Your task to perform on an android device: turn off picture-in-picture Image 0: 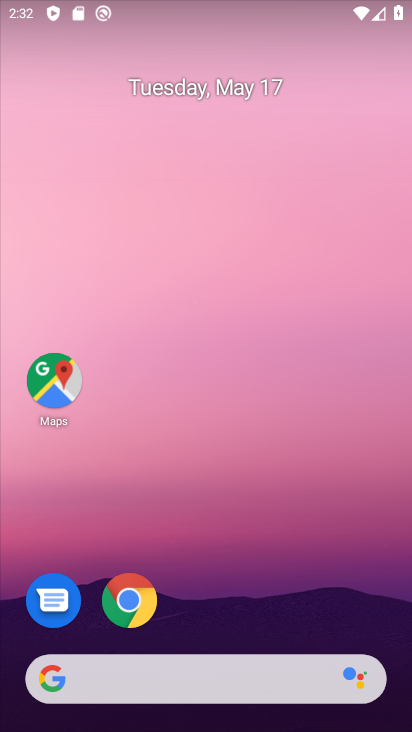
Step 0: drag from (211, 643) to (281, 193)
Your task to perform on an android device: turn off picture-in-picture Image 1: 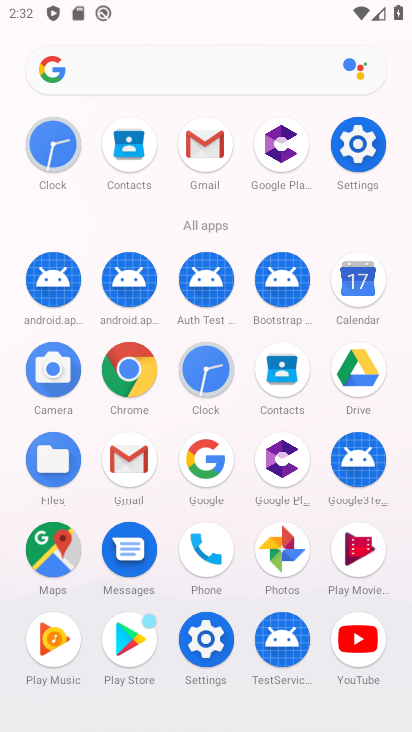
Step 1: click (375, 137)
Your task to perform on an android device: turn off picture-in-picture Image 2: 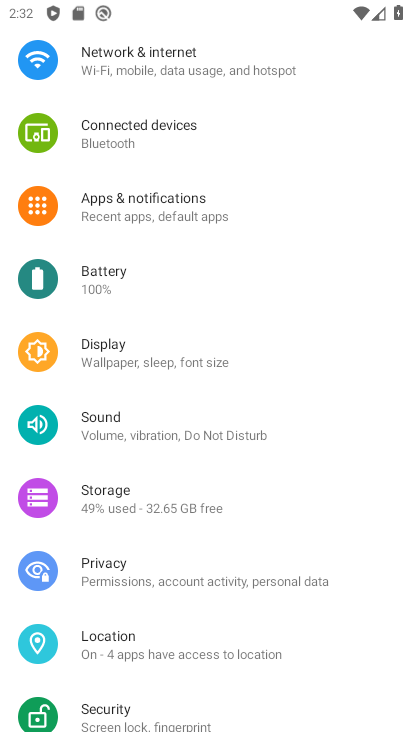
Step 2: click (189, 203)
Your task to perform on an android device: turn off picture-in-picture Image 3: 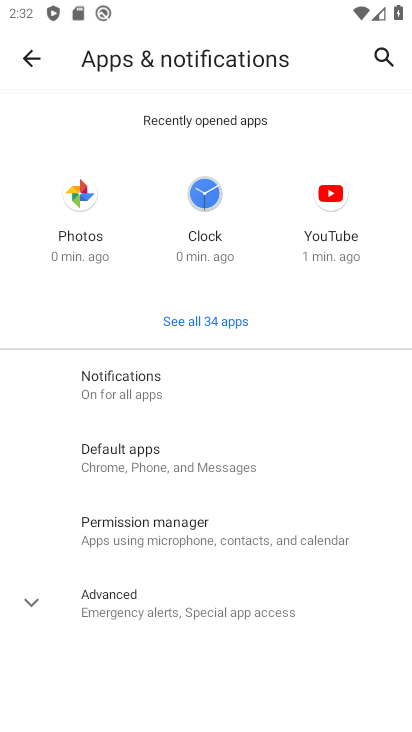
Step 3: click (232, 621)
Your task to perform on an android device: turn off picture-in-picture Image 4: 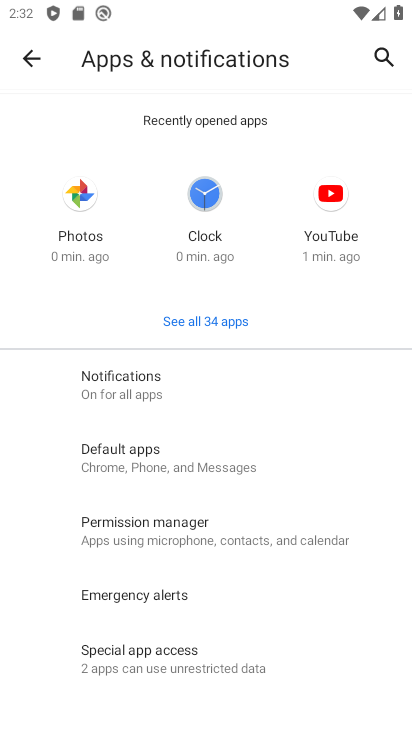
Step 4: click (217, 652)
Your task to perform on an android device: turn off picture-in-picture Image 5: 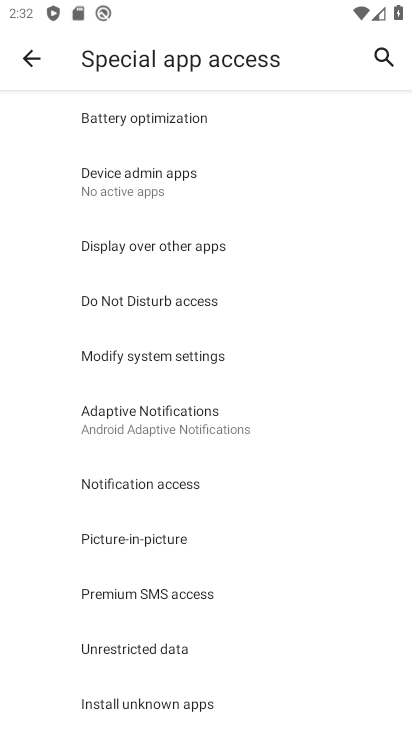
Step 5: click (211, 555)
Your task to perform on an android device: turn off picture-in-picture Image 6: 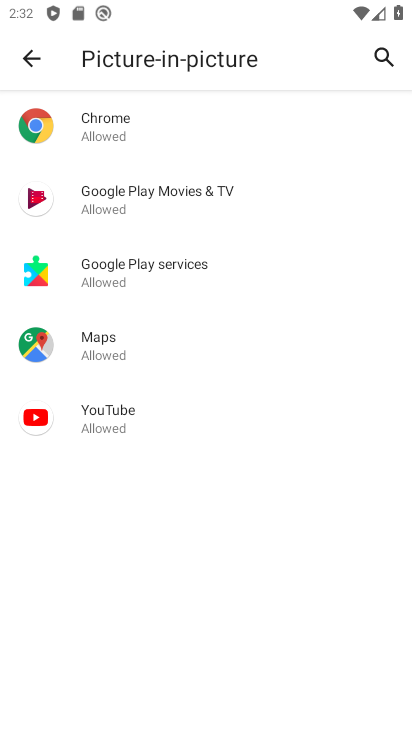
Step 6: click (166, 136)
Your task to perform on an android device: turn off picture-in-picture Image 7: 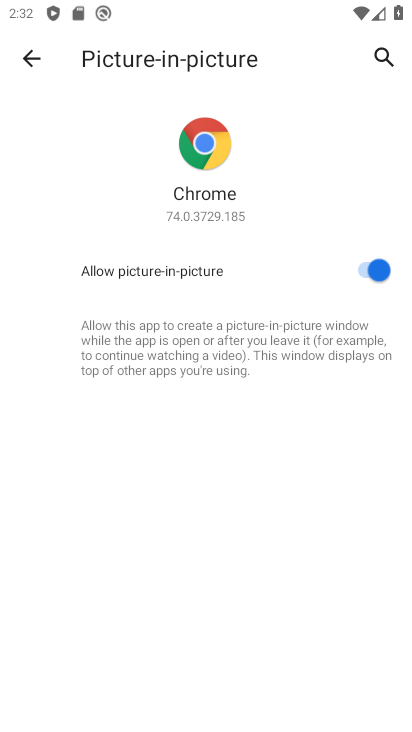
Step 7: click (365, 261)
Your task to perform on an android device: turn off picture-in-picture Image 8: 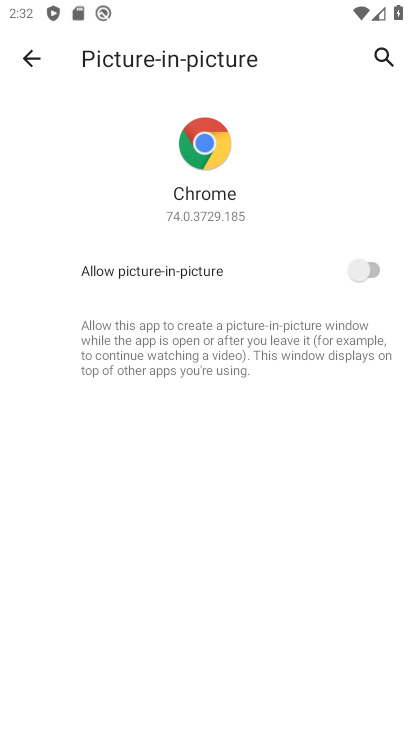
Step 8: click (13, 55)
Your task to perform on an android device: turn off picture-in-picture Image 9: 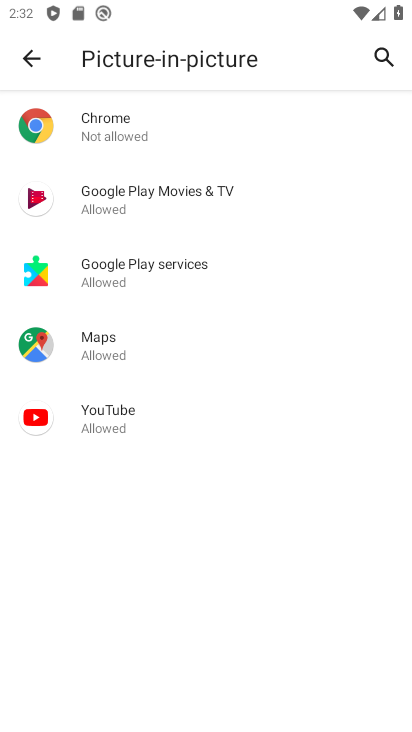
Step 9: click (195, 193)
Your task to perform on an android device: turn off picture-in-picture Image 10: 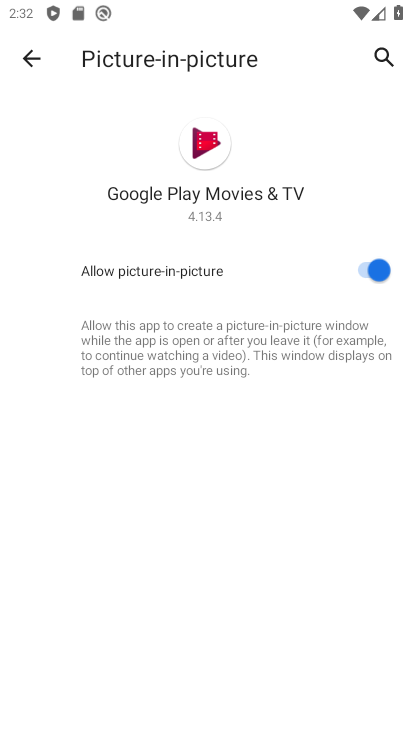
Step 10: click (363, 263)
Your task to perform on an android device: turn off picture-in-picture Image 11: 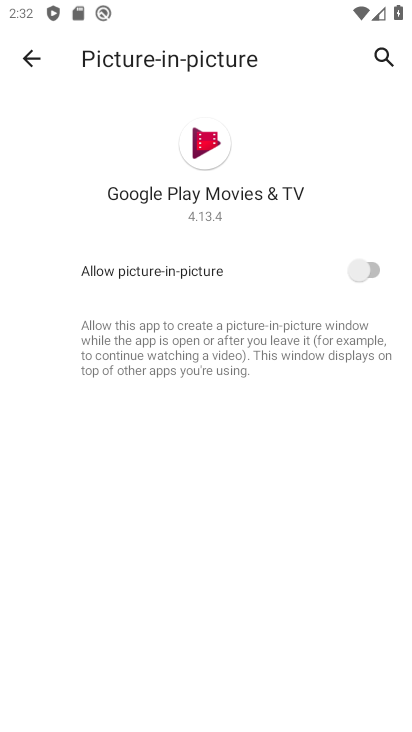
Step 11: click (39, 53)
Your task to perform on an android device: turn off picture-in-picture Image 12: 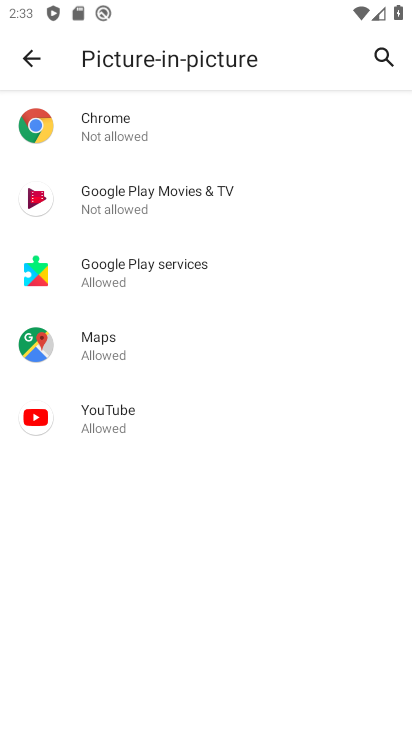
Step 12: click (232, 277)
Your task to perform on an android device: turn off picture-in-picture Image 13: 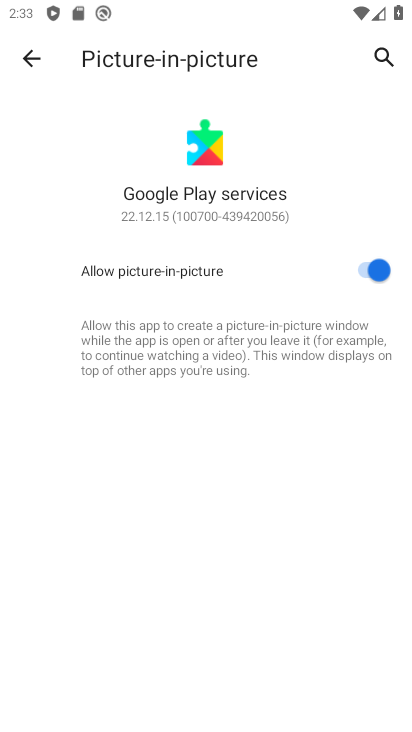
Step 13: click (359, 265)
Your task to perform on an android device: turn off picture-in-picture Image 14: 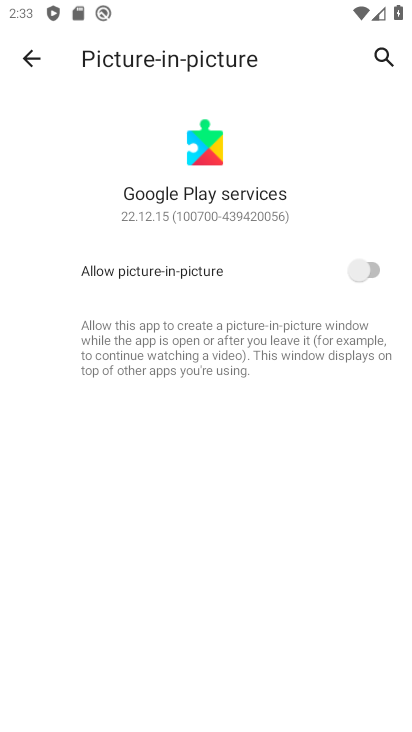
Step 14: click (29, 61)
Your task to perform on an android device: turn off picture-in-picture Image 15: 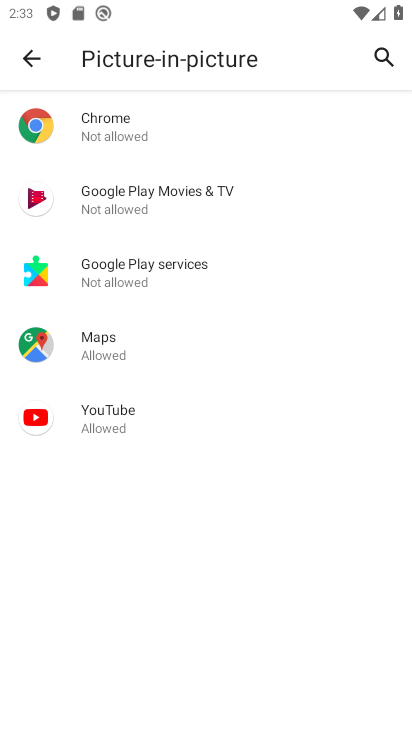
Step 15: click (209, 348)
Your task to perform on an android device: turn off picture-in-picture Image 16: 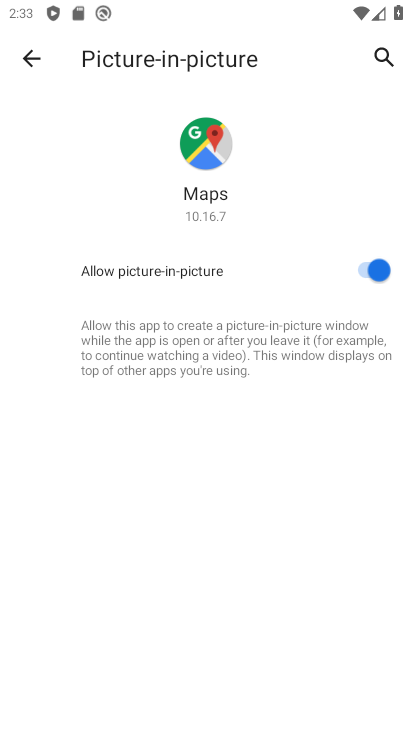
Step 16: click (354, 262)
Your task to perform on an android device: turn off picture-in-picture Image 17: 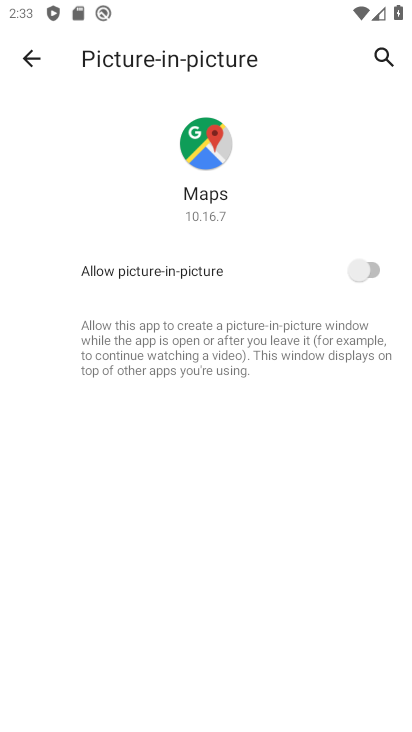
Step 17: click (34, 69)
Your task to perform on an android device: turn off picture-in-picture Image 18: 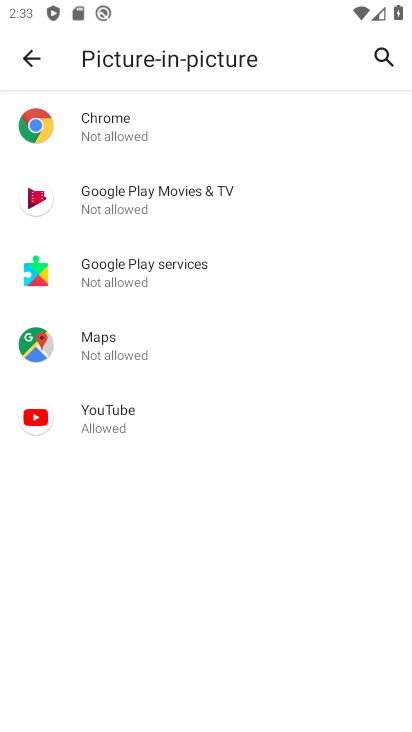
Step 18: click (209, 416)
Your task to perform on an android device: turn off picture-in-picture Image 19: 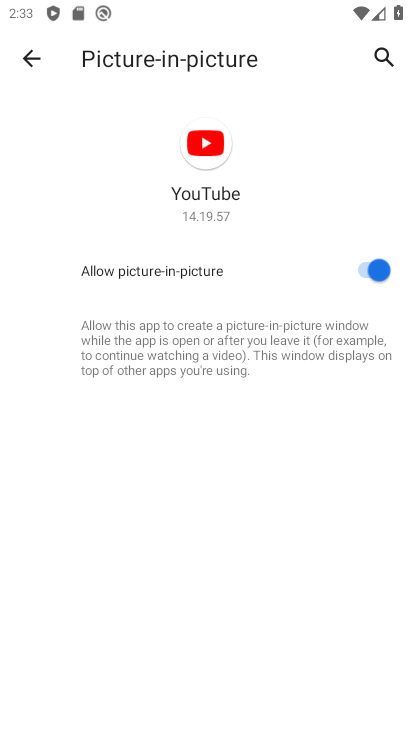
Step 19: click (359, 267)
Your task to perform on an android device: turn off picture-in-picture Image 20: 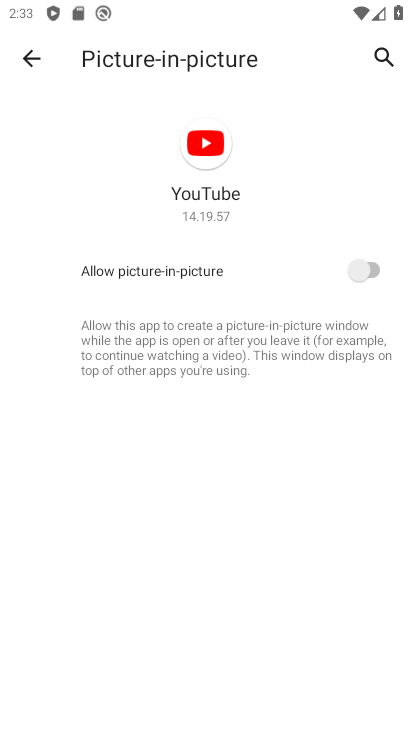
Step 20: task complete